Your task to perform on an android device: Open the web browser Image 0: 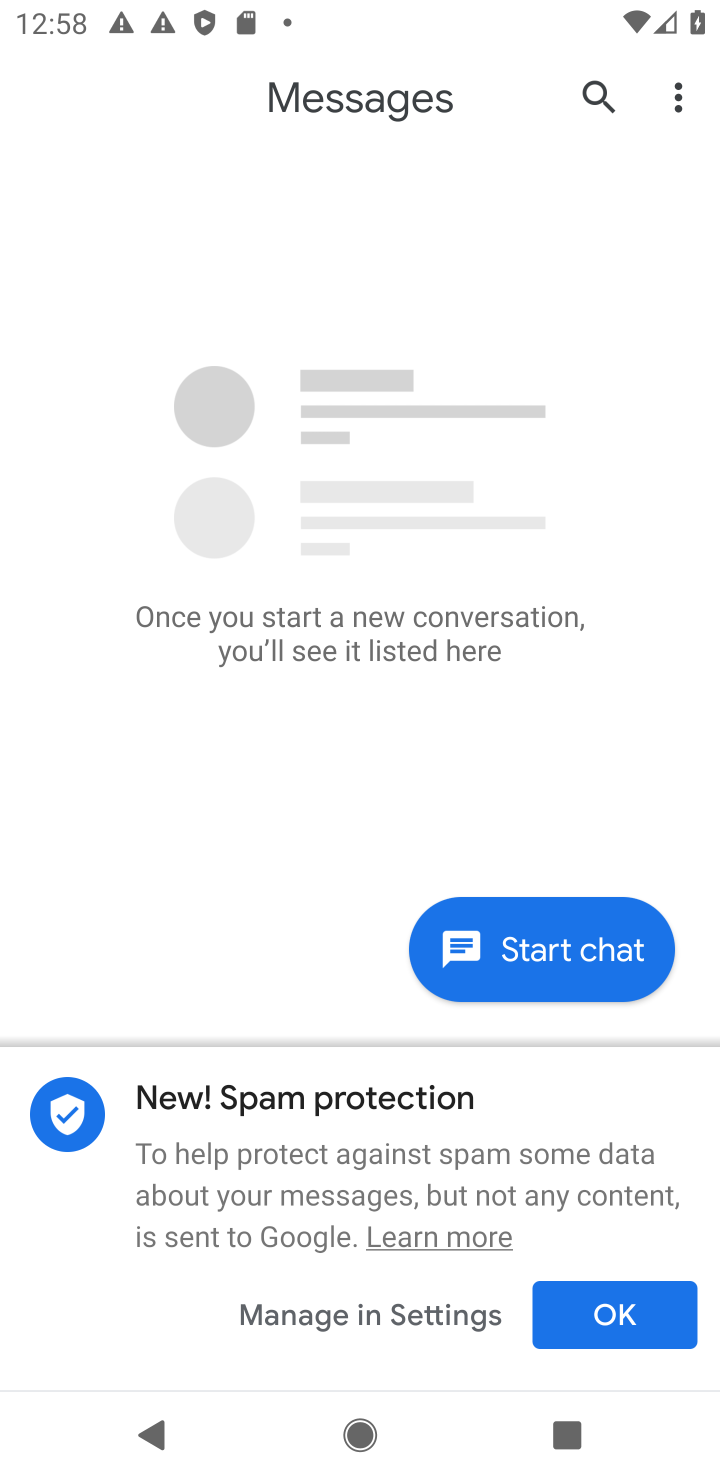
Step 0: press home button
Your task to perform on an android device: Open the web browser Image 1: 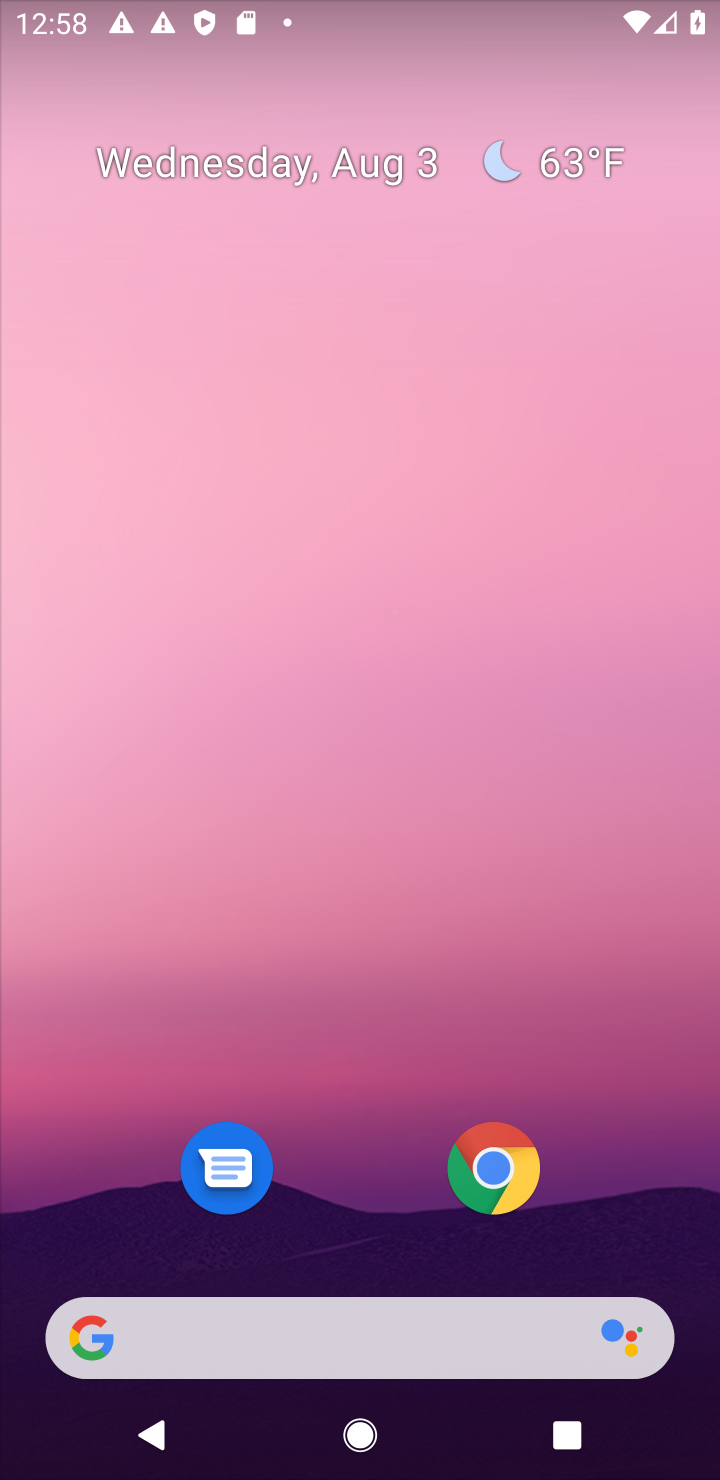
Step 1: click (498, 1172)
Your task to perform on an android device: Open the web browser Image 2: 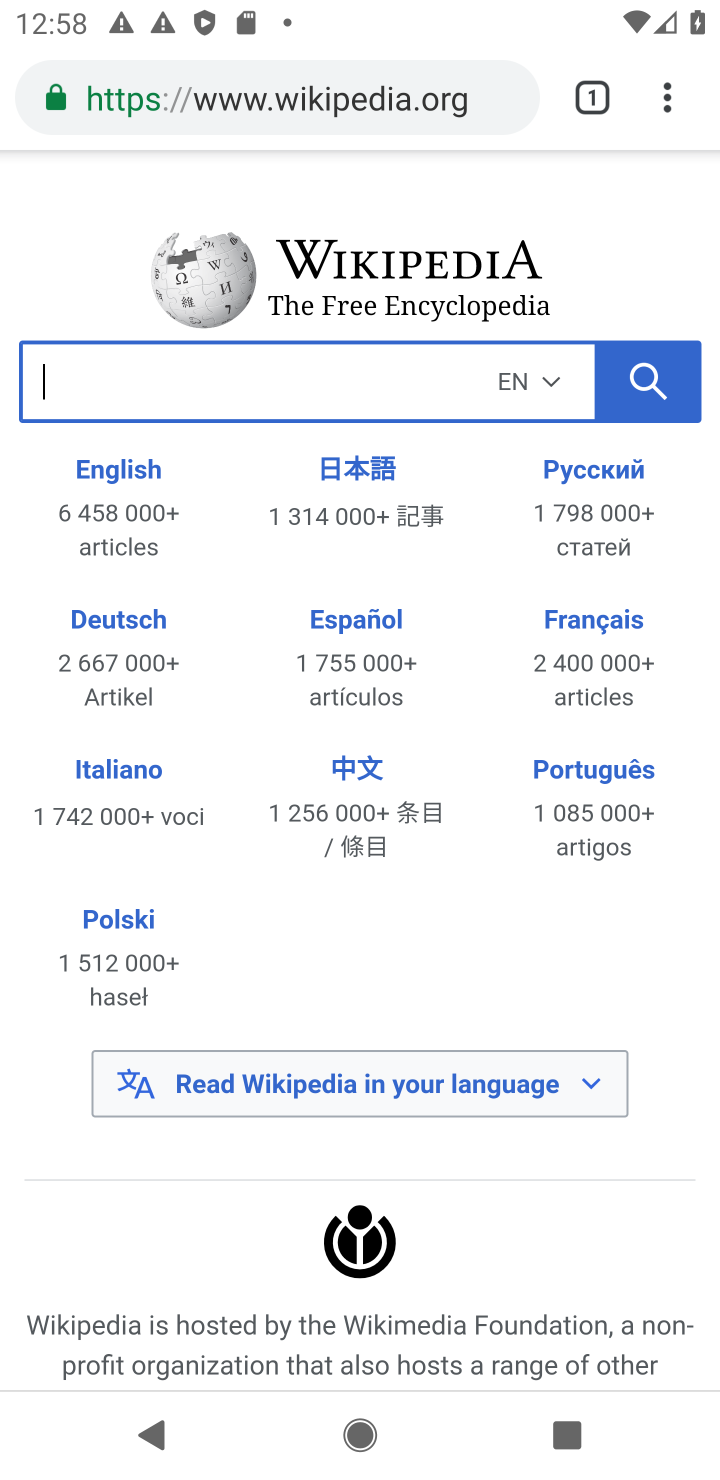
Step 2: task complete